Your task to perform on an android device: toggle javascript in the chrome app Image 0: 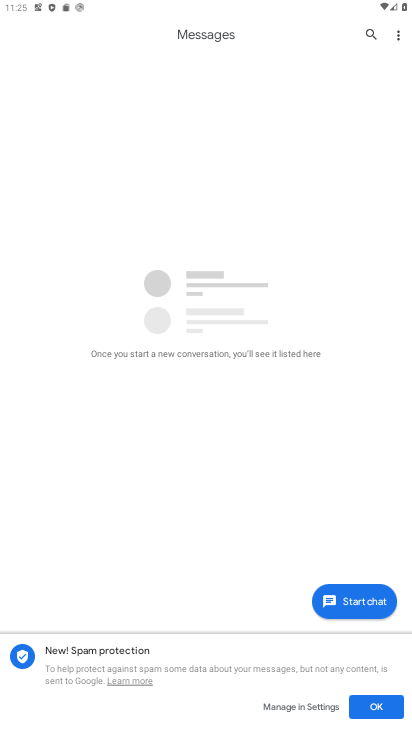
Step 0: press home button
Your task to perform on an android device: toggle javascript in the chrome app Image 1: 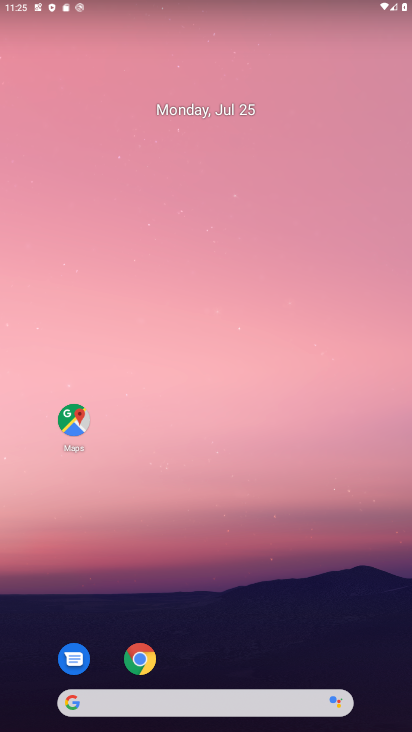
Step 1: click (128, 645)
Your task to perform on an android device: toggle javascript in the chrome app Image 2: 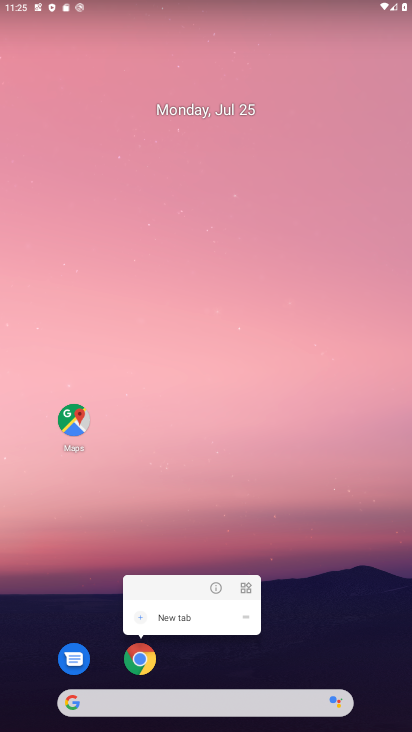
Step 2: click (143, 658)
Your task to perform on an android device: toggle javascript in the chrome app Image 3: 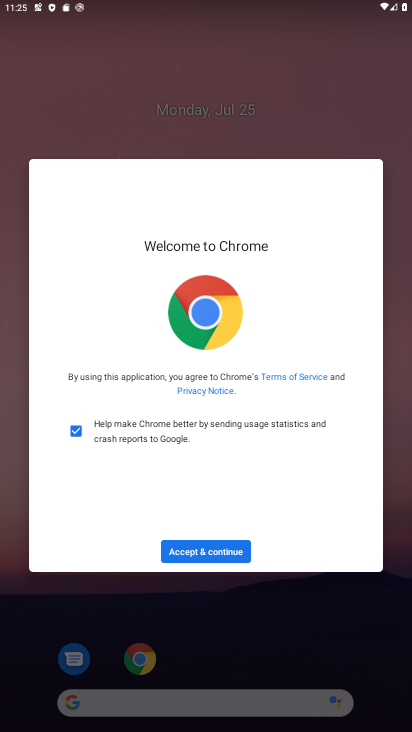
Step 3: click (214, 553)
Your task to perform on an android device: toggle javascript in the chrome app Image 4: 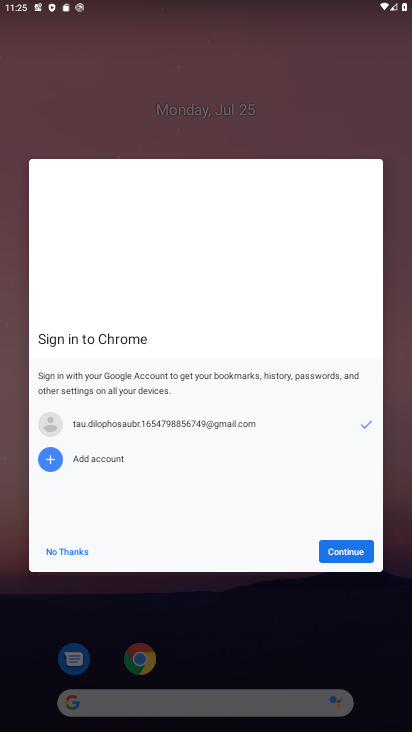
Step 4: click (365, 558)
Your task to perform on an android device: toggle javascript in the chrome app Image 5: 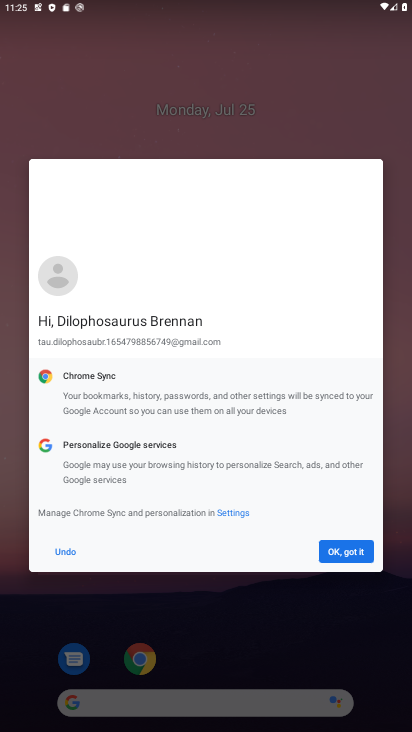
Step 5: click (341, 554)
Your task to perform on an android device: toggle javascript in the chrome app Image 6: 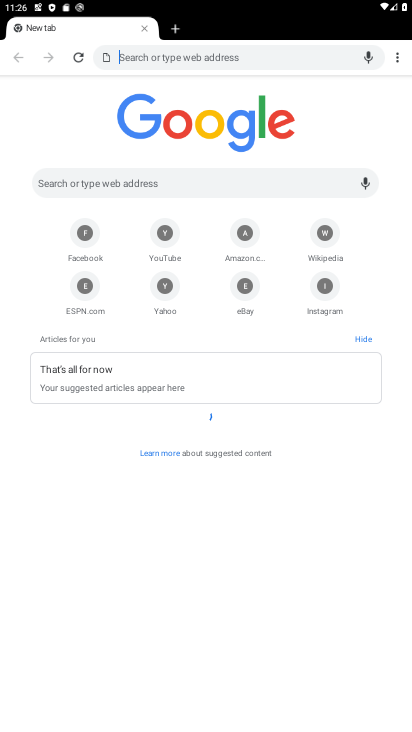
Step 6: click (393, 60)
Your task to perform on an android device: toggle javascript in the chrome app Image 7: 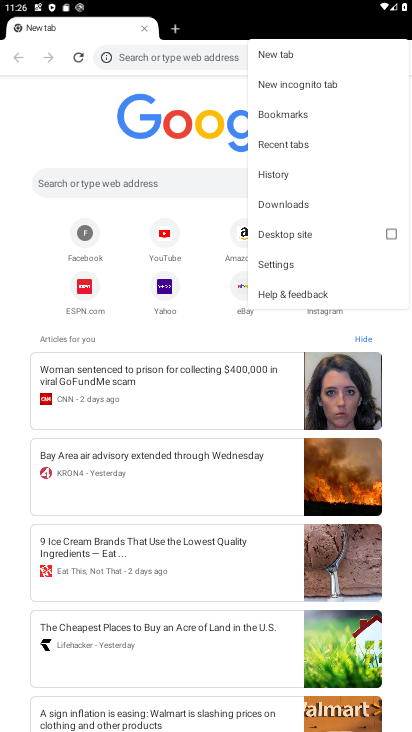
Step 7: click (269, 264)
Your task to perform on an android device: toggle javascript in the chrome app Image 8: 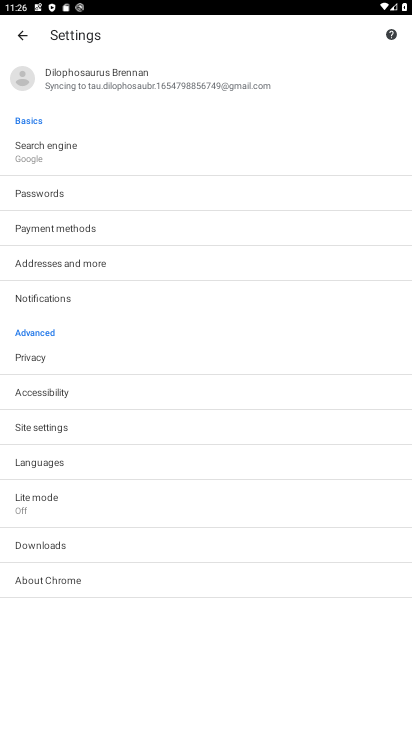
Step 8: click (53, 430)
Your task to perform on an android device: toggle javascript in the chrome app Image 9: 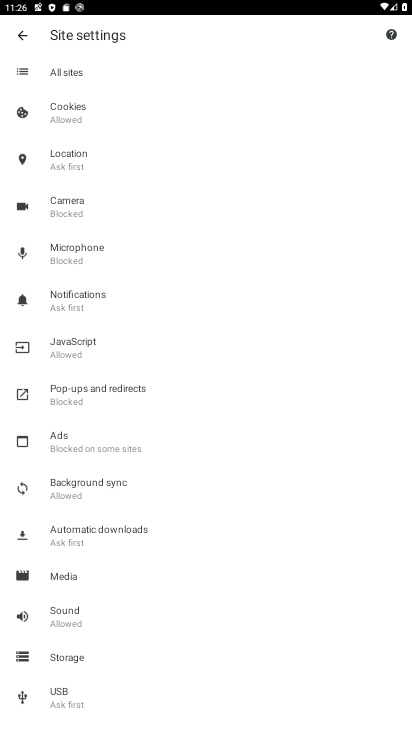
Step 9: click (81, 354)
Your task to perform on an android device: toggle javascript in the chrome app Image 10: 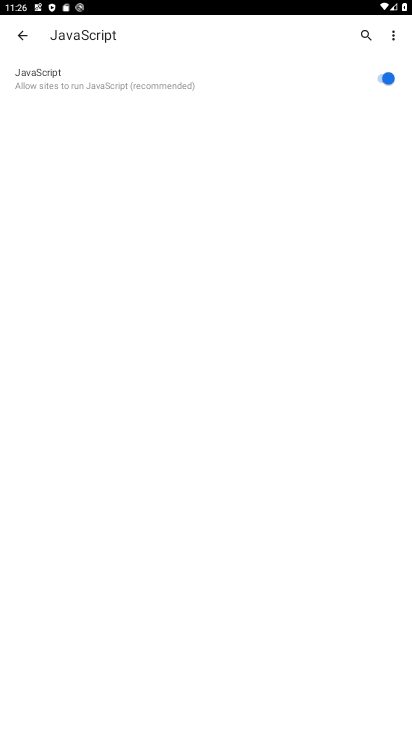
Step 10: task complete